Your task to perform on an android device: Go to Android settings Image 0: 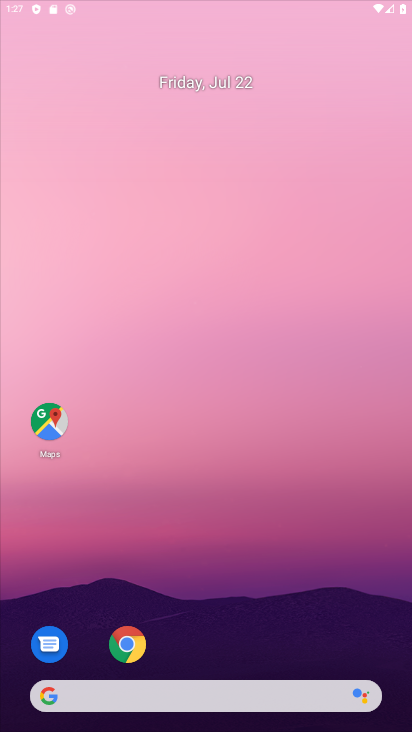
Step 0: click (221, 297)
Your task to perform on an android device: Go to Android settings Image 1: 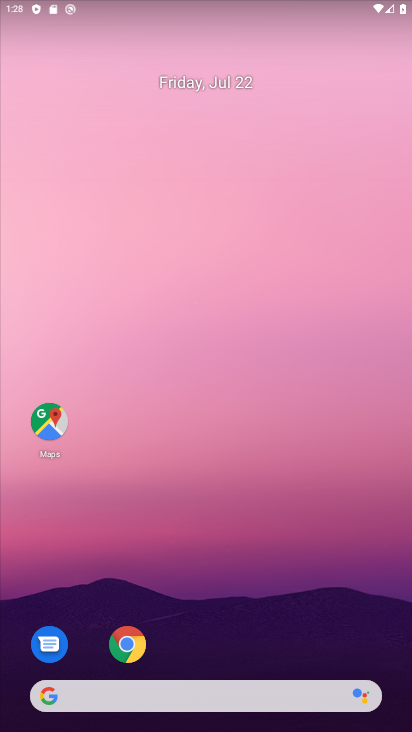
Step 1: drag from (188, 659) to (198, 181)
Your task to perform on an android device: Go to Android settings Image 2: 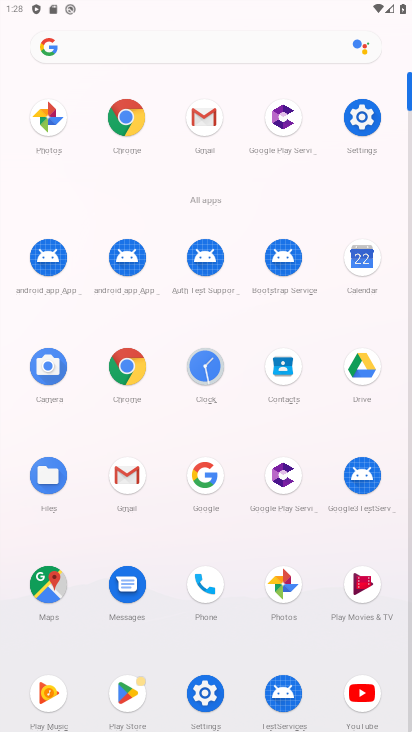
Step 2: click (352, 111)
Your task to perform on an android device: Go to Android settings Image 3: 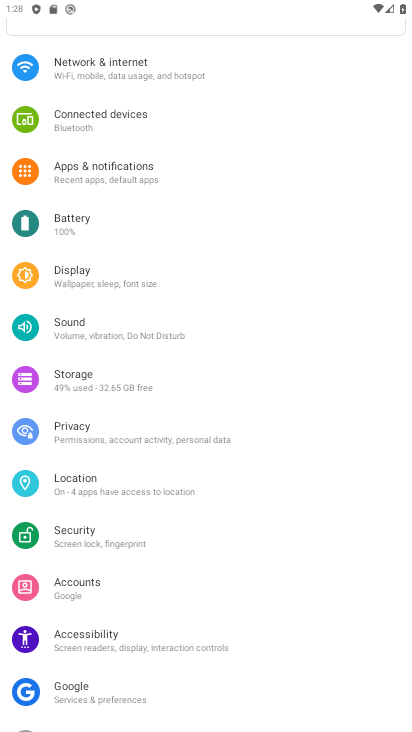
Step 3: task complete